Your task to perform on an android device: Open calendar and show me the third week of next month Image 0: 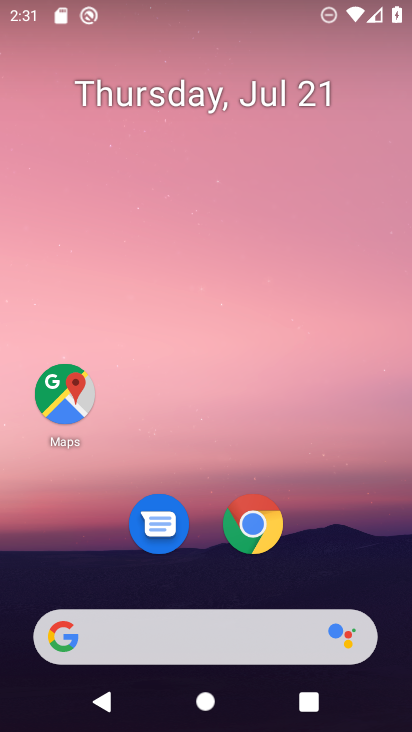
Step 0: drag from (221, 625) to (234, 227)
Your task to perform on an android device: Open calendar and show me the third week of next month Image 1: 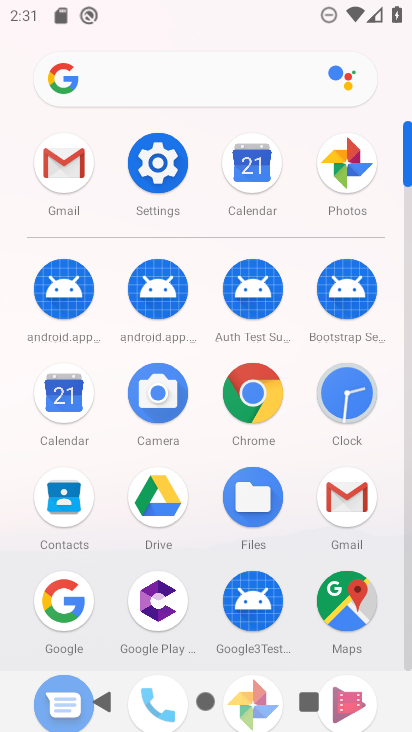
Step 1: click (58, 402)
Your task to perform on an android device: Open calendar and show me the third week of next month Image 2: 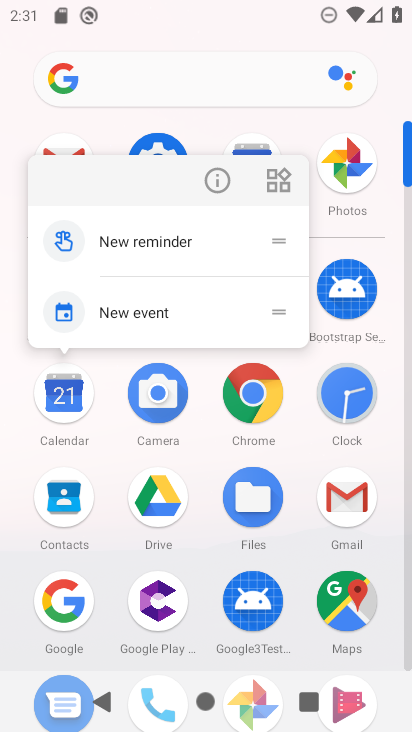
Step 2: click (69, 395)
Your task to perform on an android device: Open calendar and show me the third week of next month Image 3: 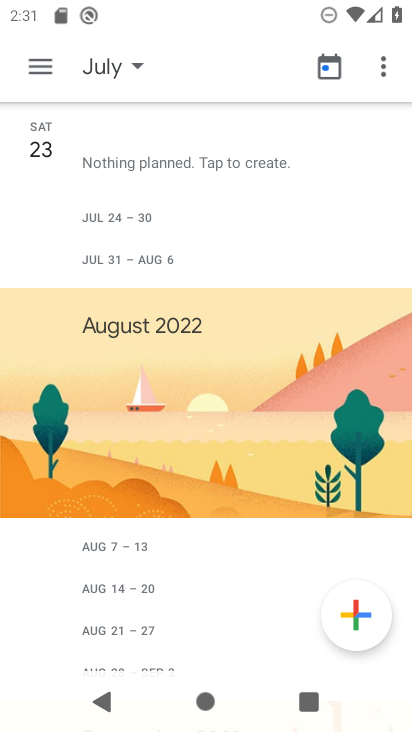
Step 3: click (109, 69)
Your task to perform on an android device: Open calendar and show me the third week of next month Image 4: 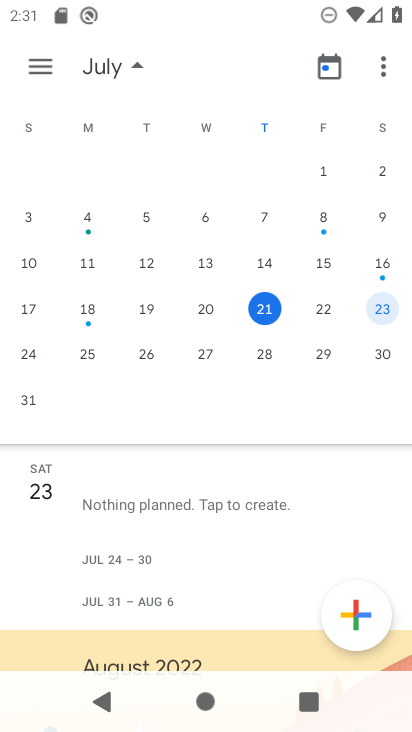
Step 4: drag from (323, 257) to (37, 226)
Your task to perform on an android device: Open calendar and show me the third week of next month Image 5: 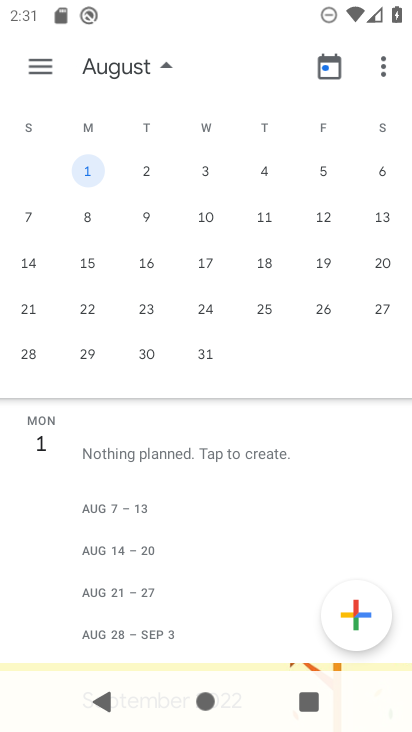
Step 5: click (30, 268)
Your task to perform on an android device: Open calendar and show me the third week of next month Image 6: 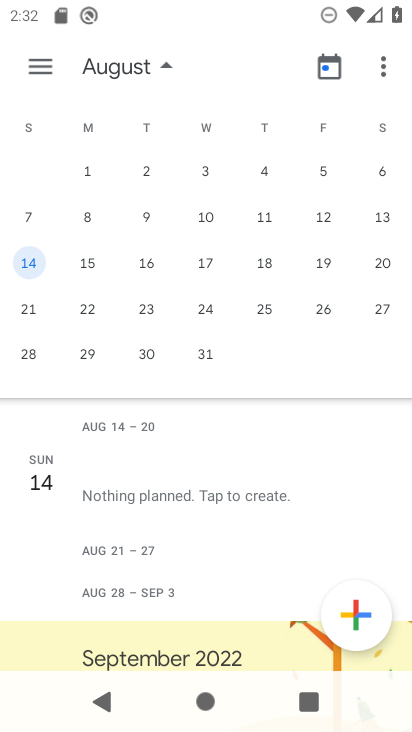
Step 6: click (44, 68)
Your task to perform on an android device: Open calendar and show me the third week of next month Image 7: 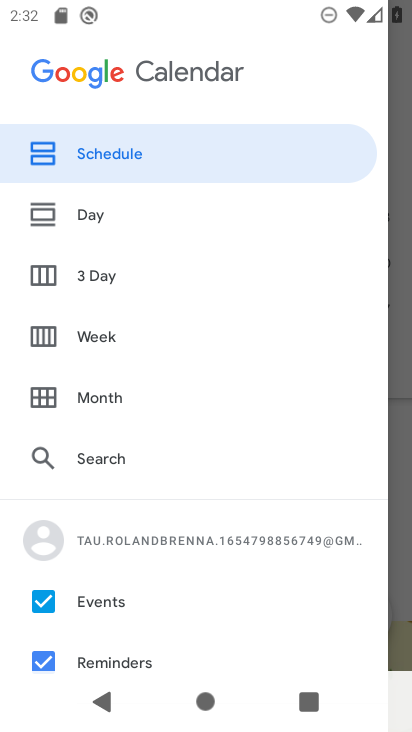
Step 7: click (117, 337)
Your task to perform on an android device: Open calendar and show me the third week of next month Image 8: 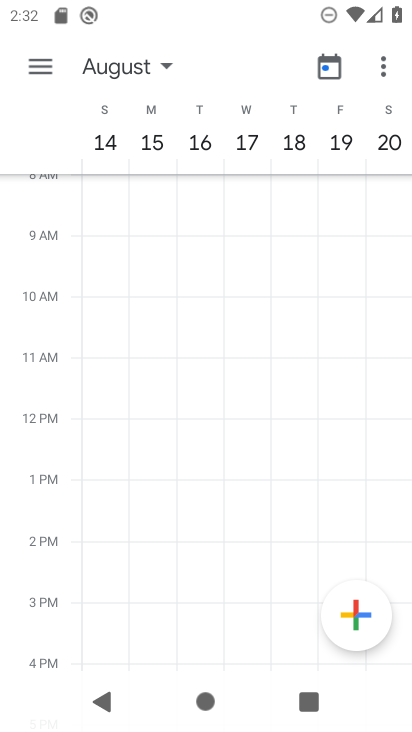
Step 8: task complete